Your task to perform on an android device: Do I have any events this weekend? Image 0: 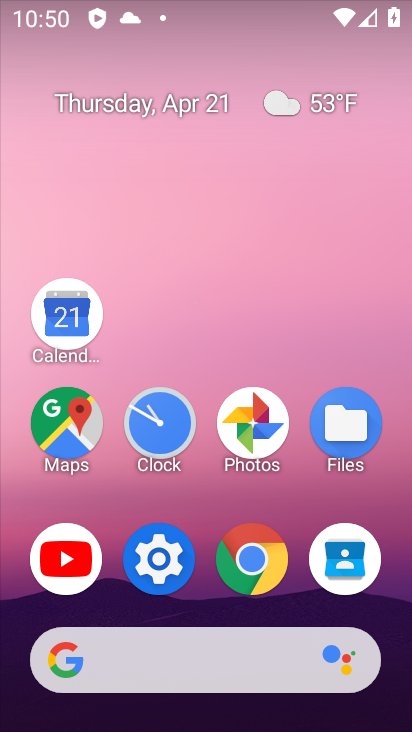
Step 0: click (70, 311)
Your task to perform on an android device: Do I have any events this weekend? Image 1: 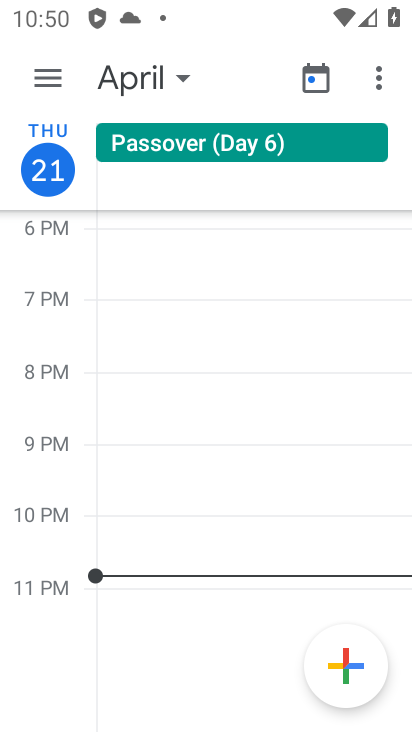
Step 1: click (181, 72)
Your task to perform on an android device: Do I have any events this weekend? Image 2: 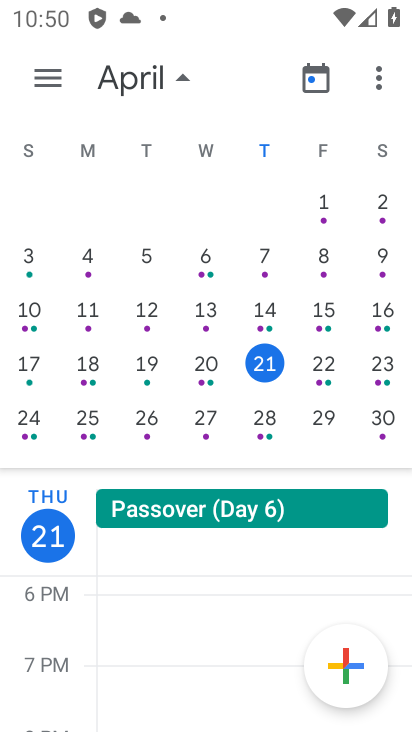
Step 2: click (385, 365)
Your task to perform on an android device: Do I have any events this weekend? Image 3: 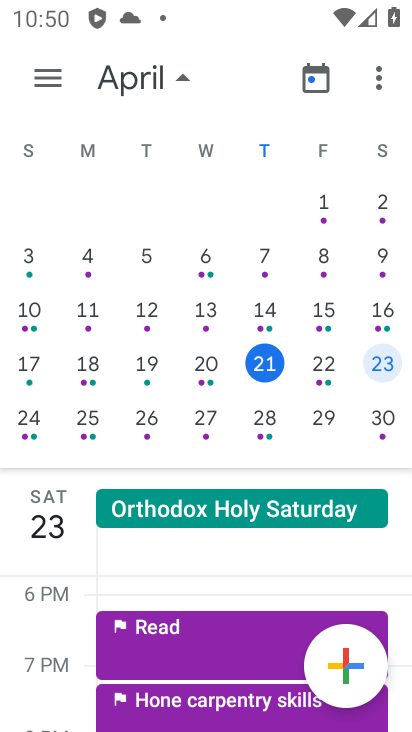
Step 3: task complete